Your task to perform on an android device: Check the weather Image 0: 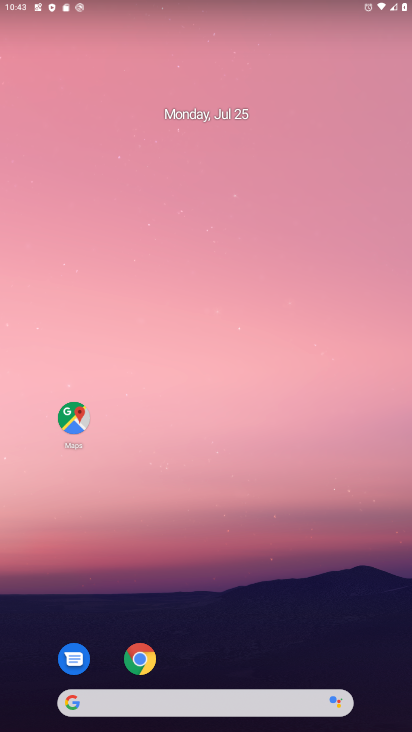
Step 0: click (211, 699)
Your task to perform on an android device: Check the weather Image 1: 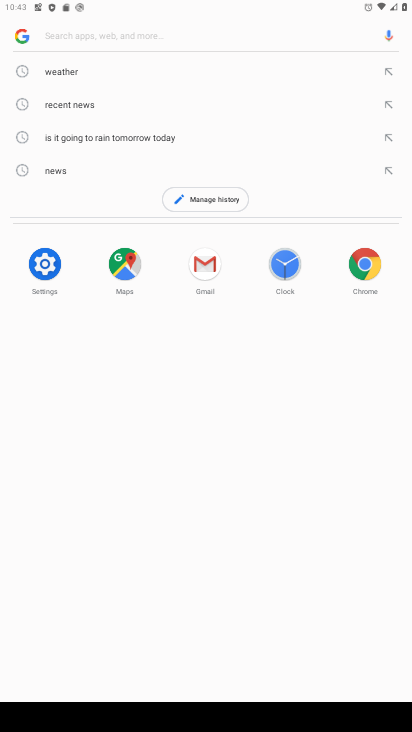
Step 1: click (56, 74)
Your task to perform on an android device: Check the weather Image 2: 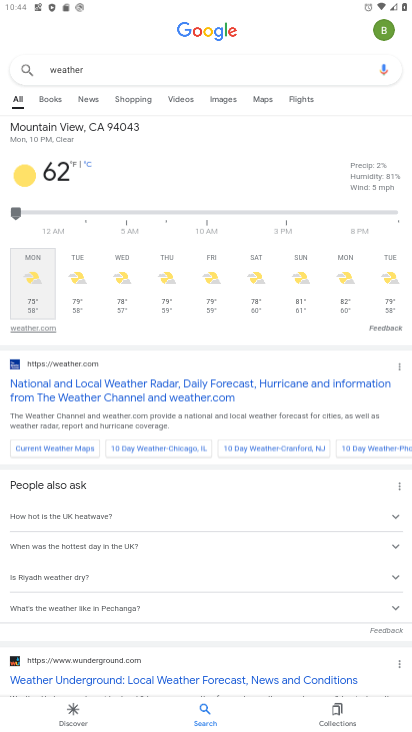
Step 2: task complete